Your task to perform on an android device: turn on notifications settings in the gmail app Image 0: 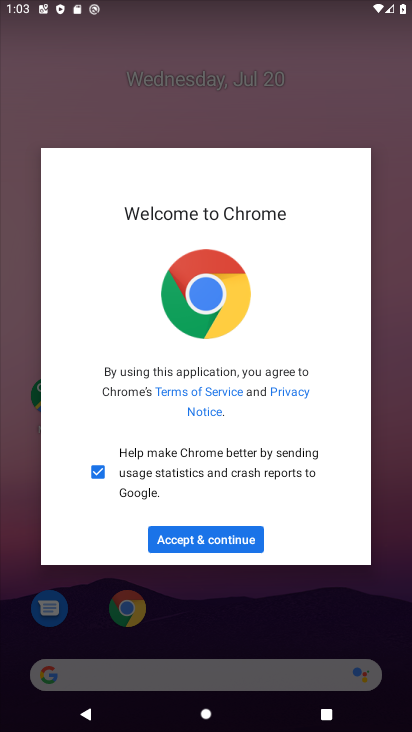
Step 0: press home button
Your task to perform on an android device: turn on notifications settings in the gmail app Image 1: 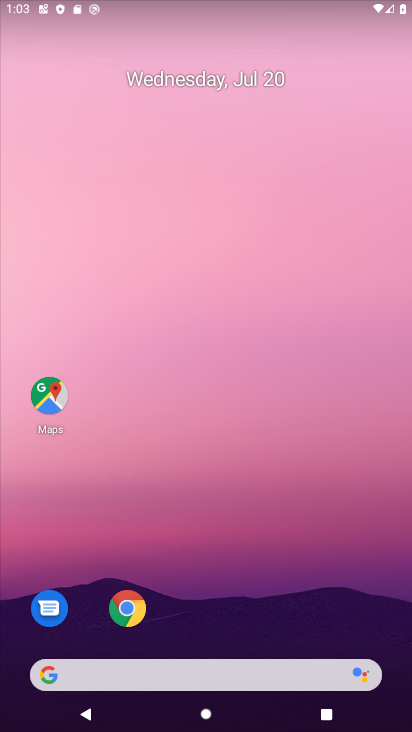
Step 1: drag from (213, 627) to (296, 51)
Your task to perform on an android device: turn on notifications settings in the gmail app Image 2: 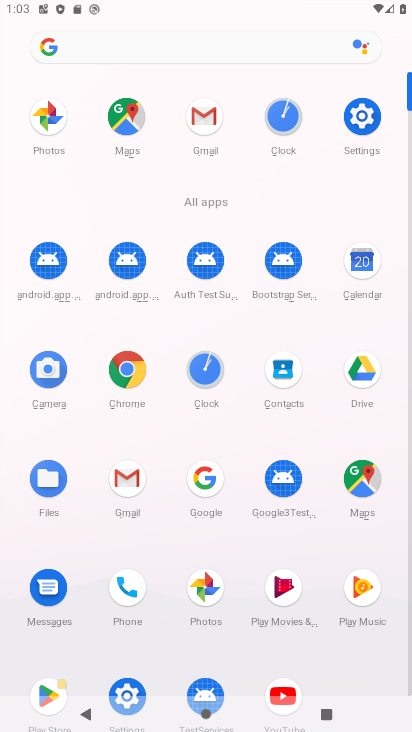
Step 2: click (134, 465)
Your task to perform on an android device: turn on notifications settings in the gmail app Image 3: 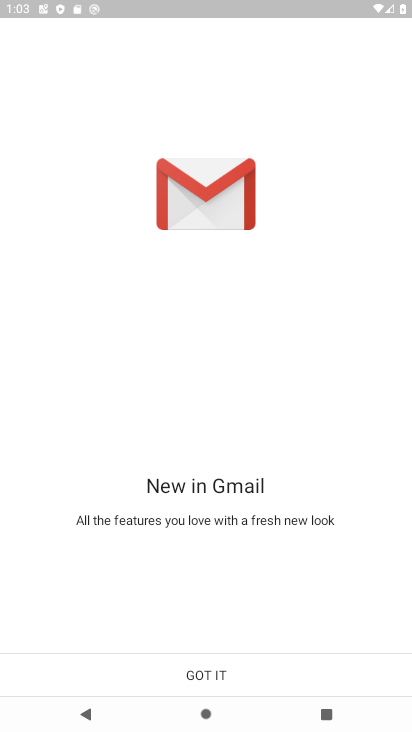
Step 3: click (246, 670)
Your task to perform on an android device: turn on notifications settings in the gmail app Image 4: 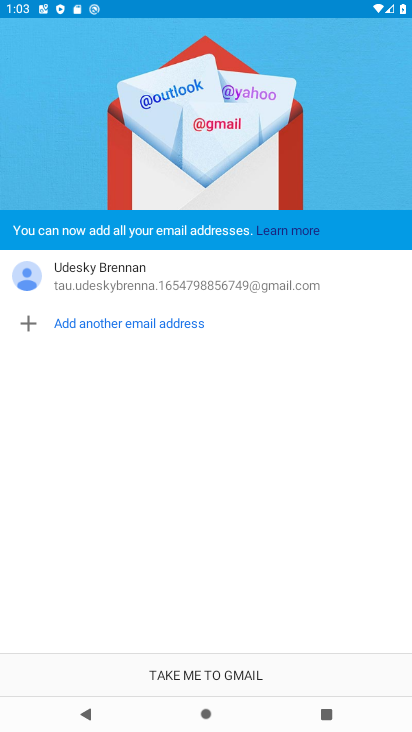
Step 4: click (267, 668)
Your task to perform on an android device: turn on notifications settings in the gmail app Image 5: 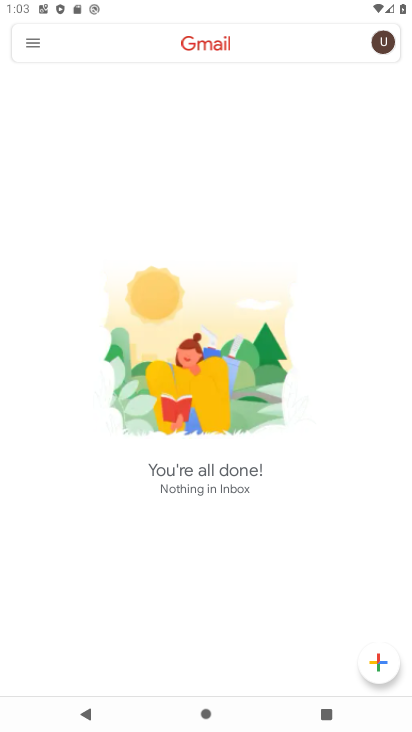
Step 5: click (39, 37)
Your task to perform on an android device: turn on notifications settings in the gmail app Image 6: 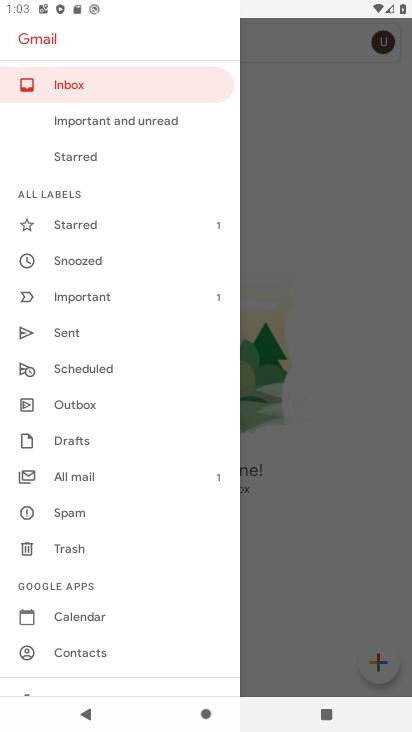
Step 6: drag from (101, 686) to (143, 366)
Your task to perform on an android device: turn on notifications settings in the gmail app Image 7: 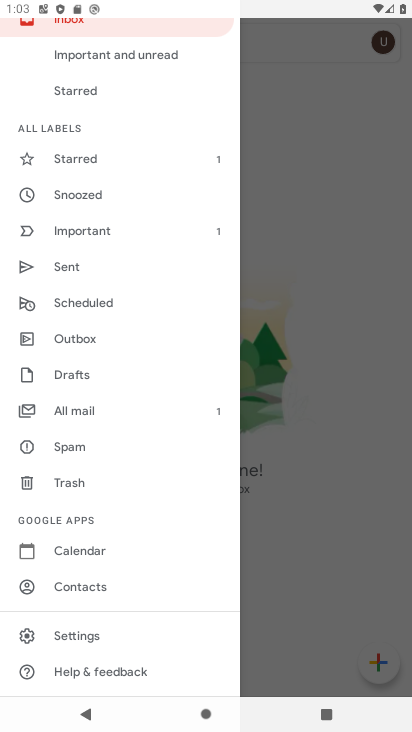
Step 7: click (131, 637)
Your task to perform on an android device: turn on notifications settings in the gmail app Image 8: 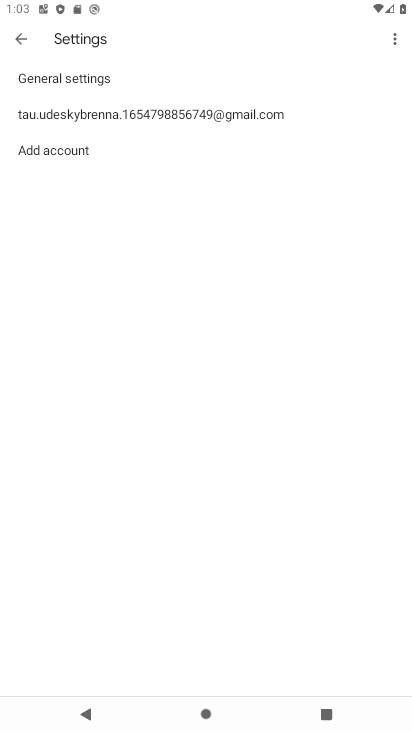
Step 8: click (286, 111)
Your task to perform on an android device: turn on notifications settings in the gmail app Image 9: 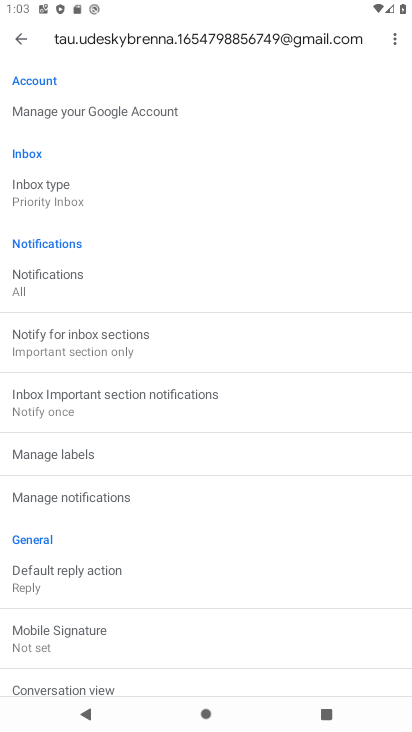
Step 9: click (211, 495)
Your task to perform on an android device: turn on notifications settings in the gmail app Image 10: 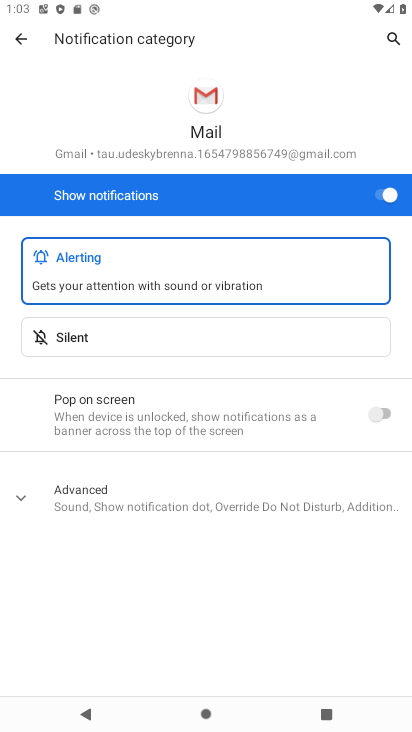
Step 10: task complete